Your task to perform on an android device: Open my contact list Image 0: 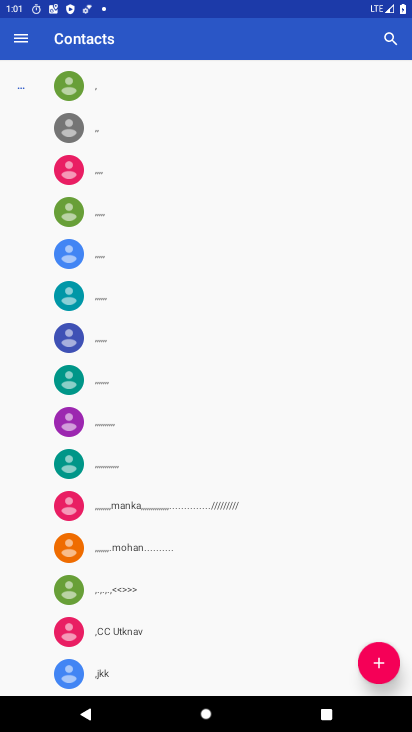
Step 0: press home button
Your task to perform on an android device: Open my contact list Image 1: 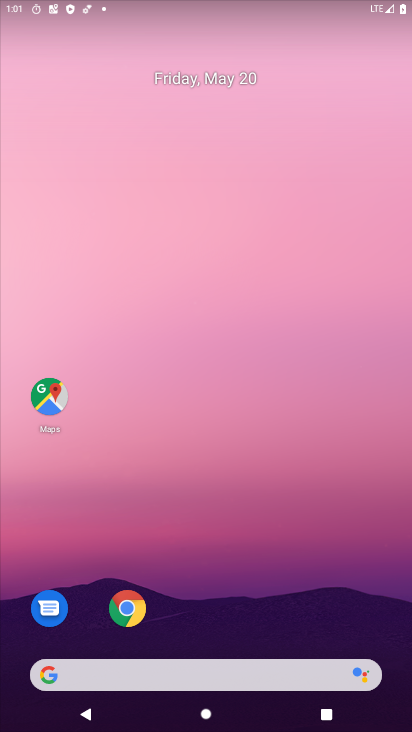
Step 1: drag from (361, 595) to (367, 137)
Your task to perform on an android device: Open my contact list Image 2: 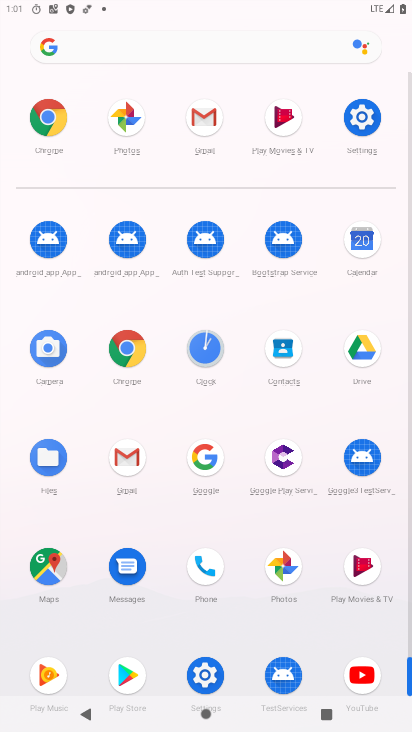
Step 2: click (286, 344)
Your task to perform on an android device: Open my contact list Image 3: 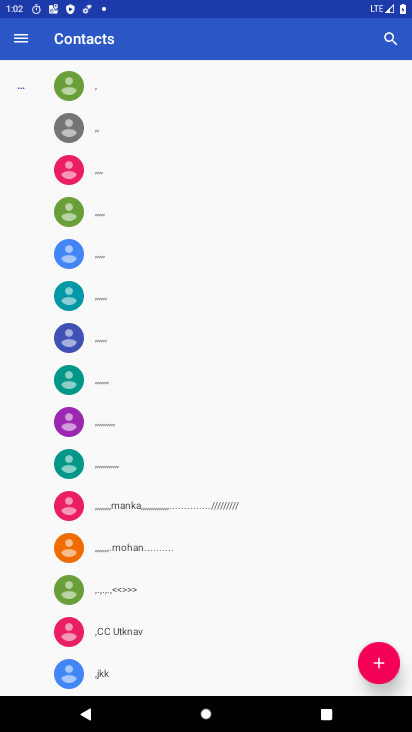
Step 3: task complete